Your task to perform on an android device: delete the emails in spam in the gmail app Image 0: 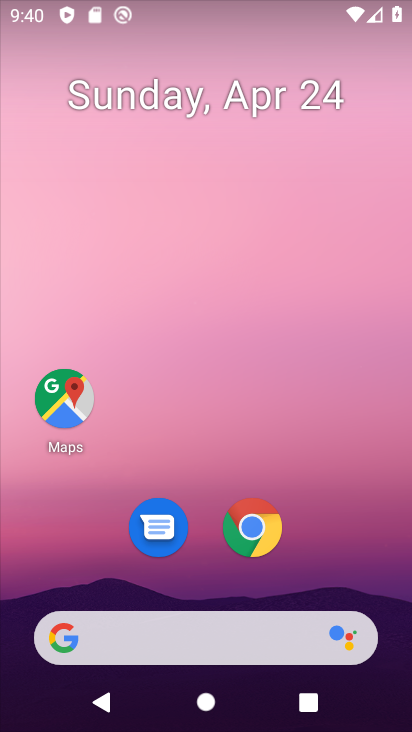
Step 0: drag from (256, 459) to (329, 58)
Your task to perform on an android device: delete the emails in spam in the gmail app Image 1: 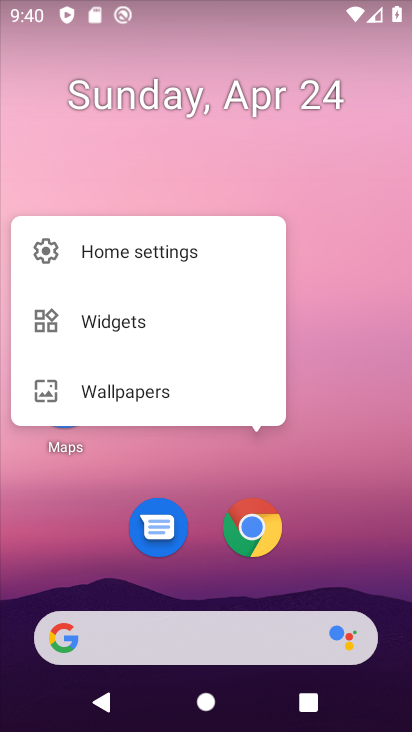
Step 1: click (176, 586)
Your task to perform on an android device: delete the emails in spam in the gmail app Image 2: 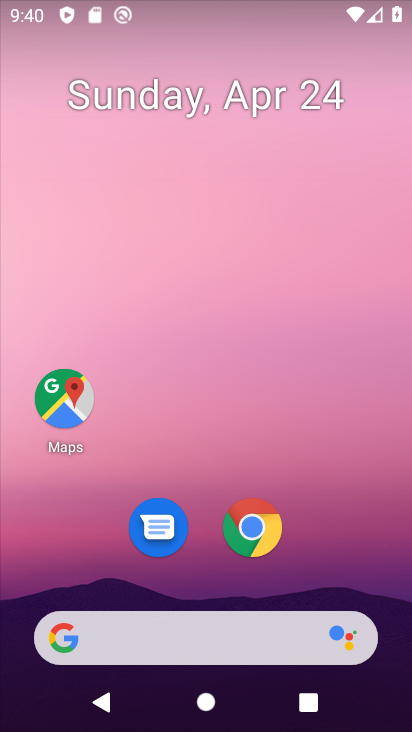
Step 2: drag from (167, 491) to (220, 84)
Your task to perform on an android device: delete the emails in spam in the gmail app Image 3: 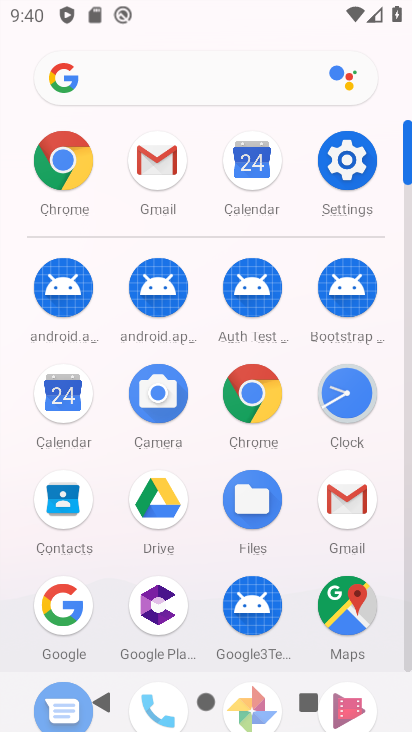
Step 3: click (163, 154)
Your task to perform on an android device: delete the emails in spam in the gmail app Image 4: 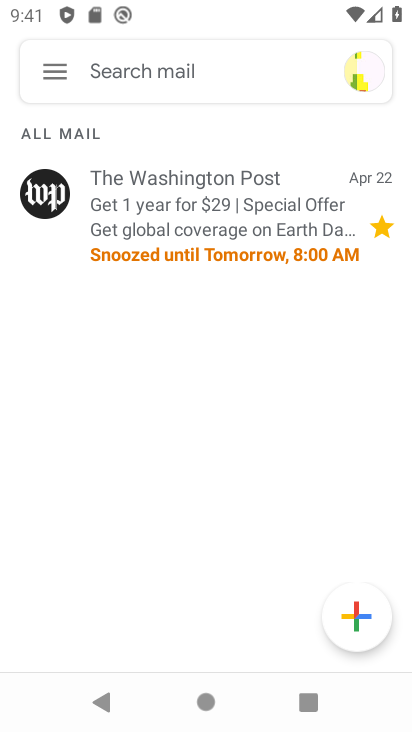
Step 4: click (56, 66)
Your task to perform on an android device: delete the emails in spam in the gmail app Image 5: 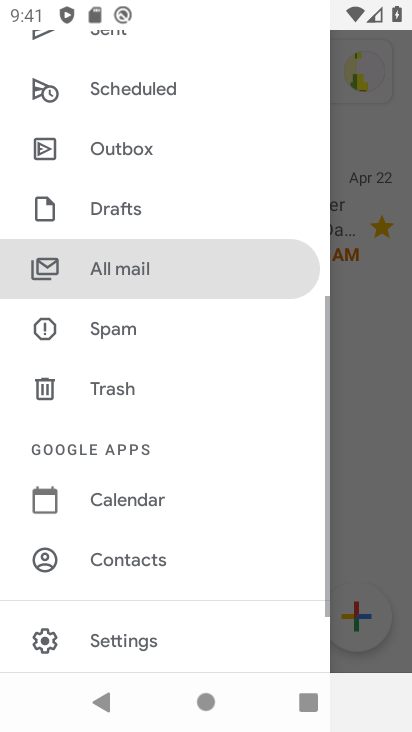
Step 5: click (127, 326)
Your task to perform on an android device: delete the emails in spam in the gmail app Image 6: 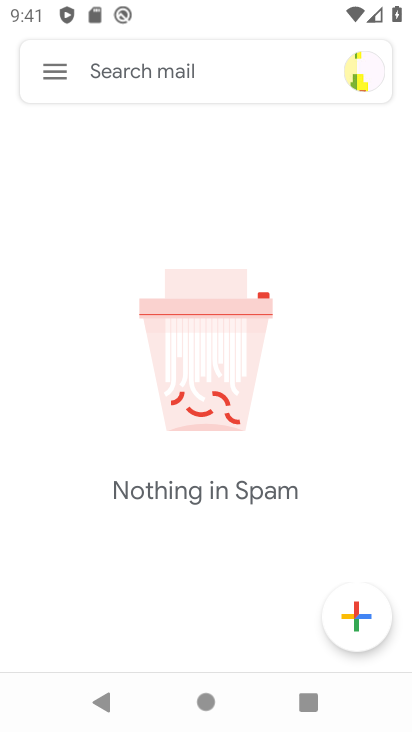
Step 6: task complete